Your task to perform on an android device: Open display settings Image 0: 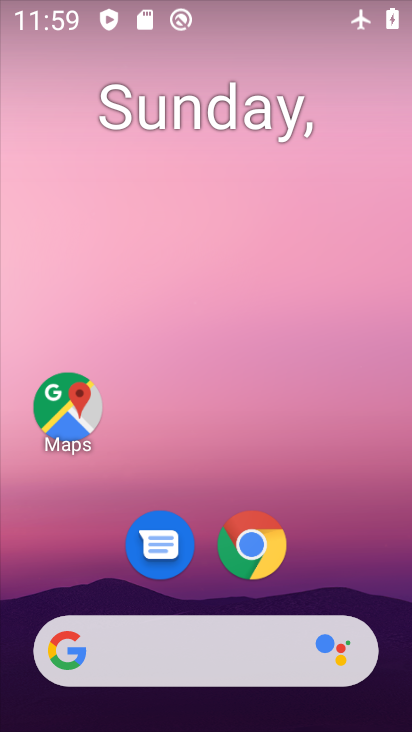
Step 0: drag from (384, 596) to (374, 139)
Your task to perform on an android device: Open display settings Image 1: 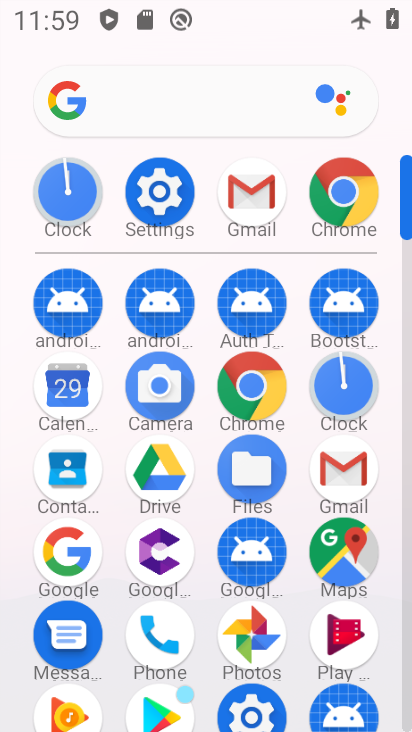
Step 1: click (167, 219)
Your task to perform on an android device: Open display settings Image 2: 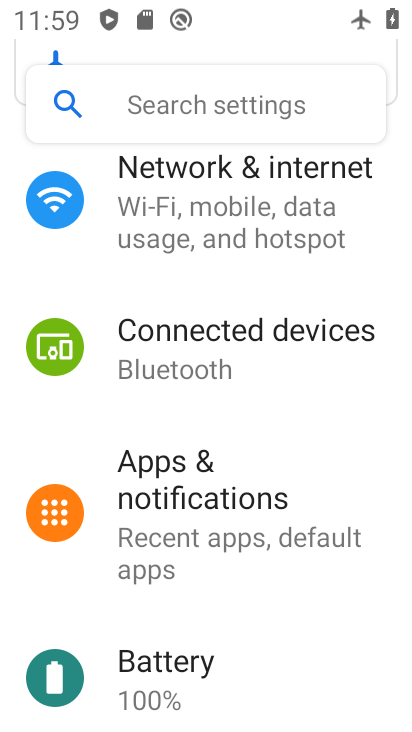
Step 2: drag from (331, 625) to (329, 479)
Your task to perform on an android device: Open display settings Image 3: 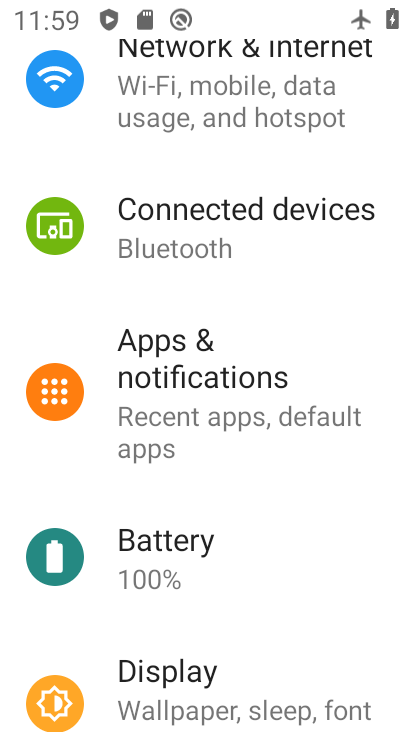
Step 3: drag from (305, 638) to (328, 479)
Your task to perform on an android device: Open display settings Image 4: 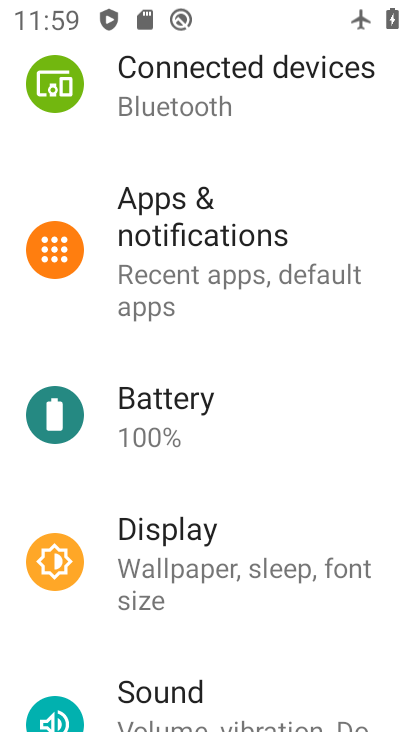
Step 4: drag from (334, 193) to (330, 361)
Your task to perform on an android device: Open display settings Image 5: 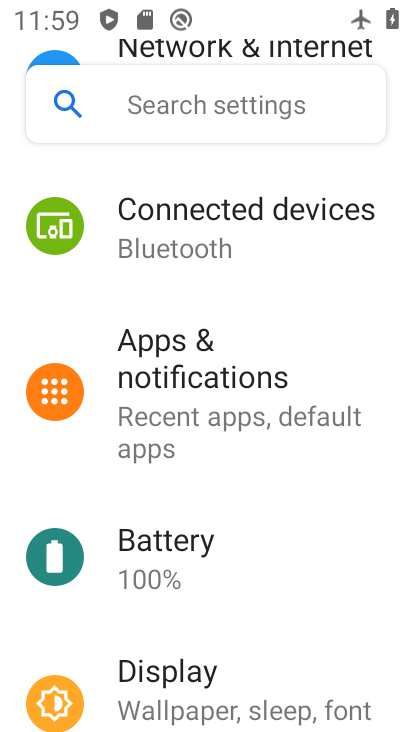
Step 5: drag from (368, 182) to (354, 371)
Your task to perform on an android device: Open display settings Image 6: 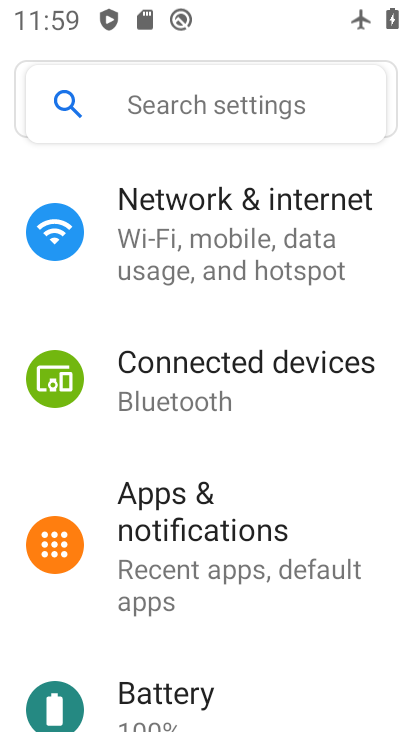
Step 6: drag from (390, 160) to (374, 349)
Your task to perform on an android device: Open display settings Image 7: 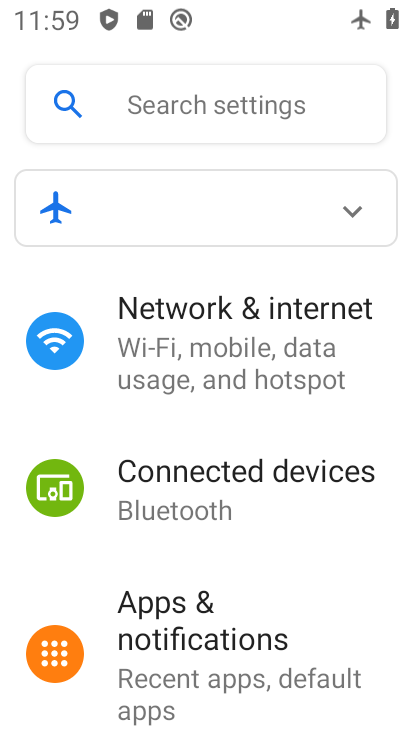
Step 7: drag from (365, 419) to (365, 295)
Your task to perform on an android device: Open display settings Image 8: 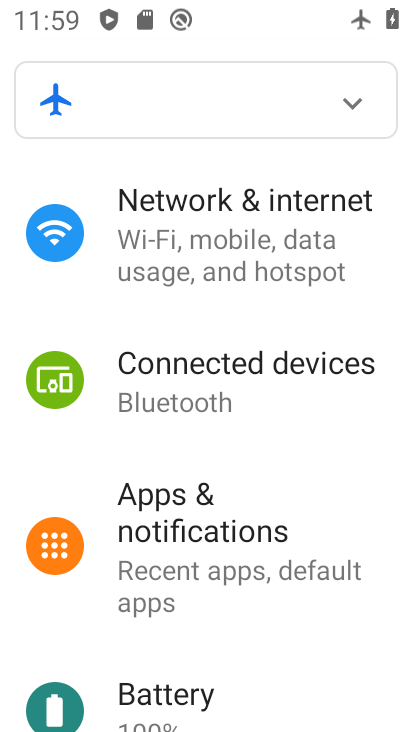
Step 8: drag from (319, 436) to (318, 320)
Your task to perform on an android device: Open display settings Image 9: 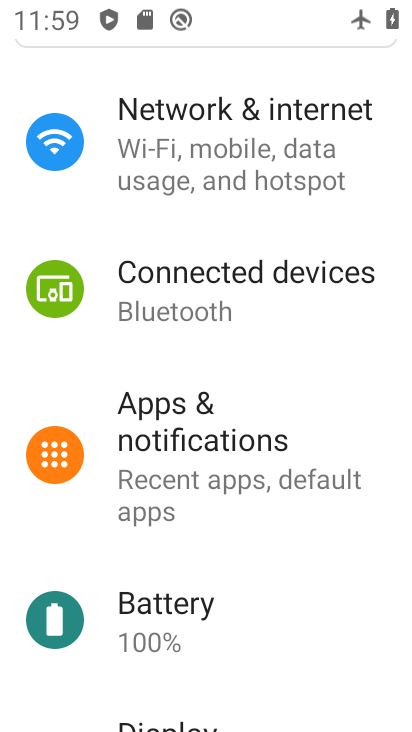
Step 9: drag from (287, 502) to (293, 325)
Your task to perform on an android device: Open display settings Image 10: 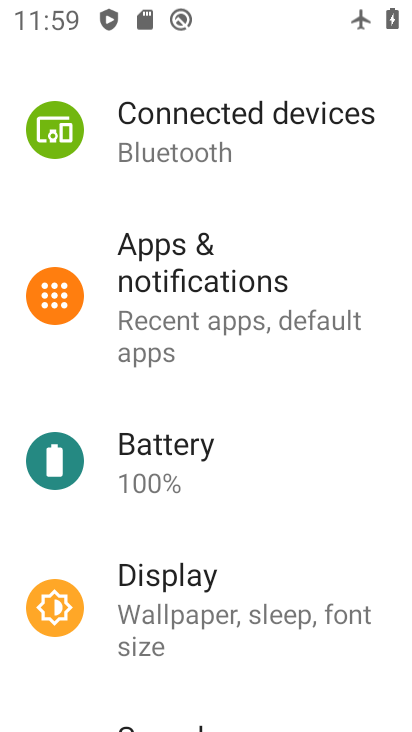
Step 10: drag from (276, 506) to (288, 370)
Your task to perform on an android device: Open display settings Image 11: 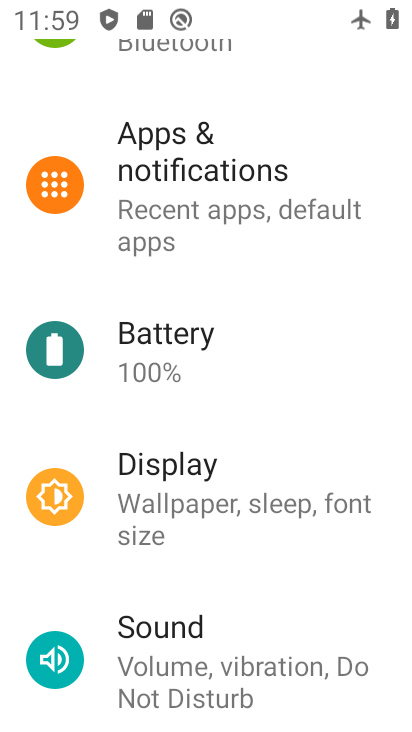
Step 11: drag from (284, 559) to (308, 402)
Your task to perform on an android device: Open display settings Image 12: 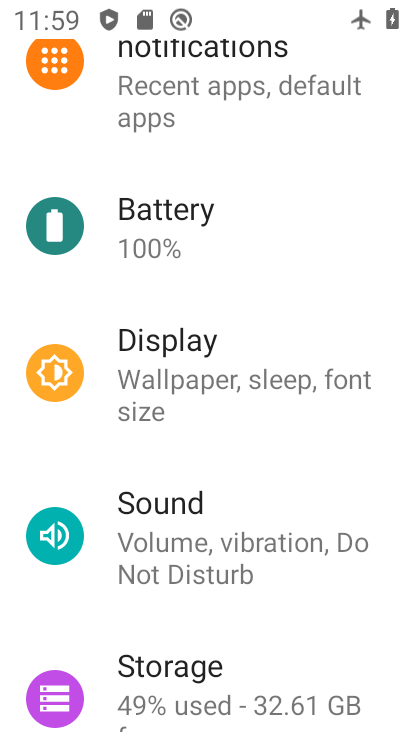
Step 12: click (265, 367)
Your task to perform on an android device: Open display settings Image 13: 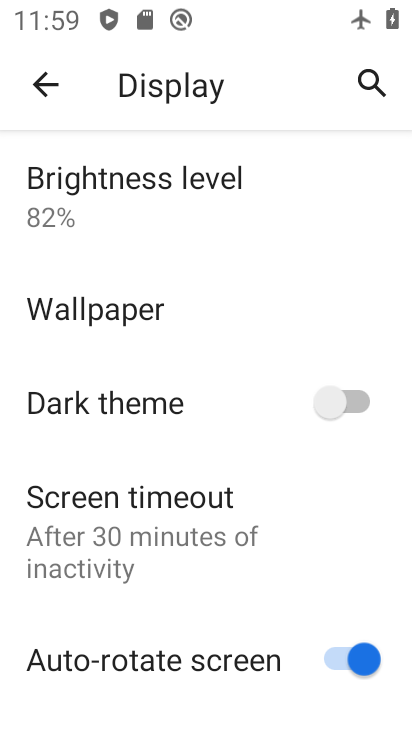
Step 13: task complete